Your task to perform on an android device: Search for Mexican restaurants on Maps Image 0: 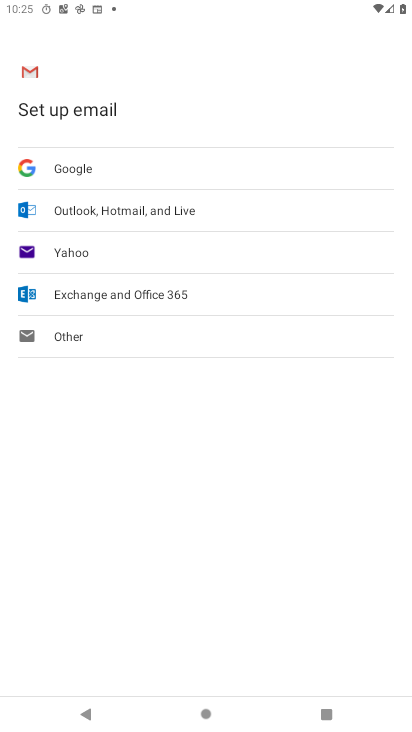
Step 0: press home button
Your task to perform on an android device: Search for Mexican restaurants on Maps Image 1: 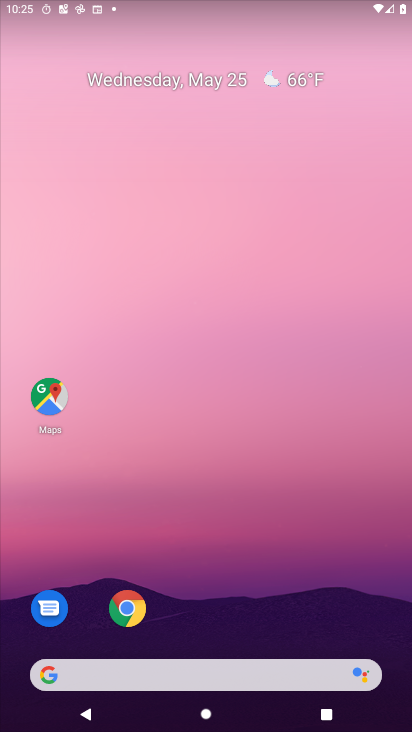
Step 1: drag from (229, 728) to (220, 50)
Your task to perform on an android device: Search for Mexican restaurants on Maps Image 2: 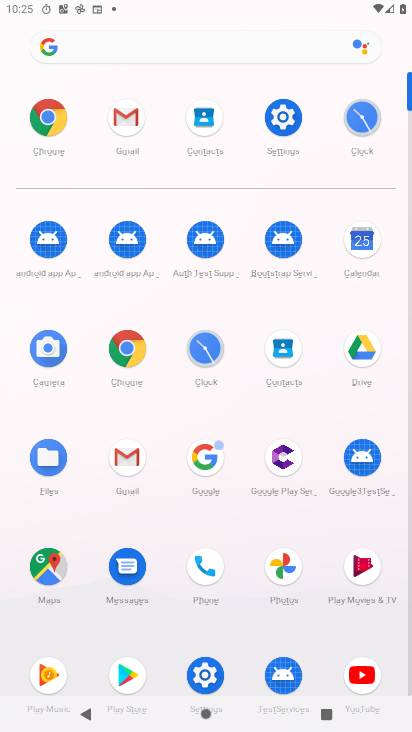
Step 2: click (34, 566)
Your task to perform on an android device: Search for Mexican restaurants on Maps Image 3: 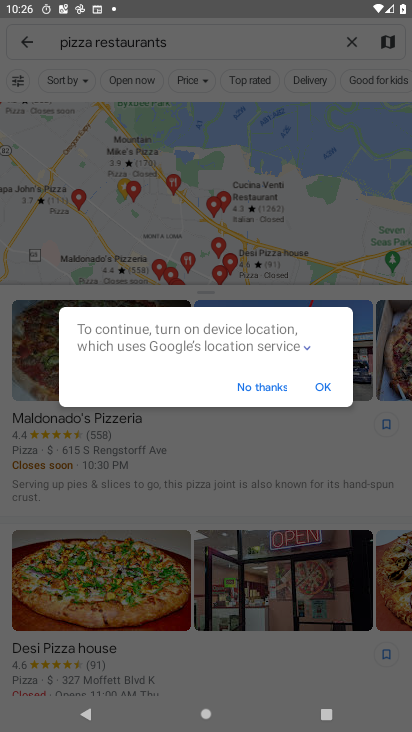
Step 3: click (270, 380)
Your task to perform on an android device: Search for Mexican restaurants on Maps Image 4: 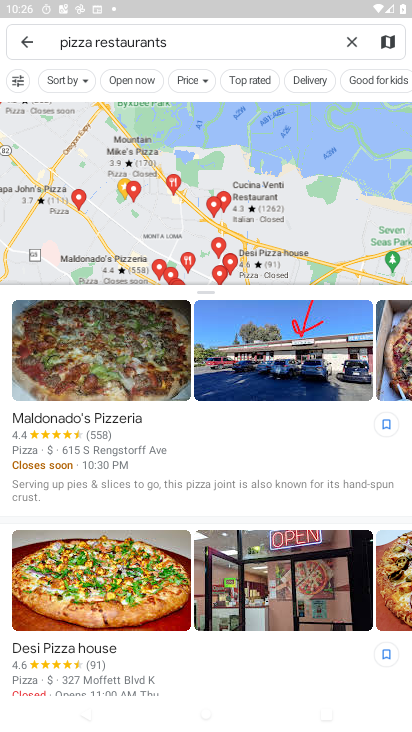
Step 4: click (348, 41)
Your task to perform on an android device: Search for Mexican restaurants on Maps Image 5: 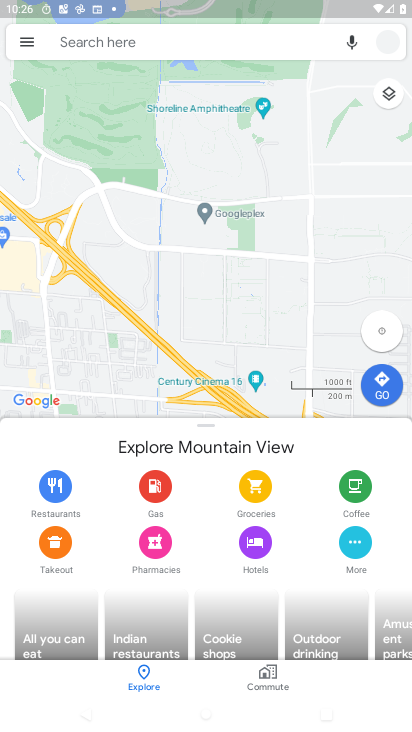
Step 5: click (210, 43)
Your task to perform on an android device: Search for Mexican restaurants on Maps Image 6: 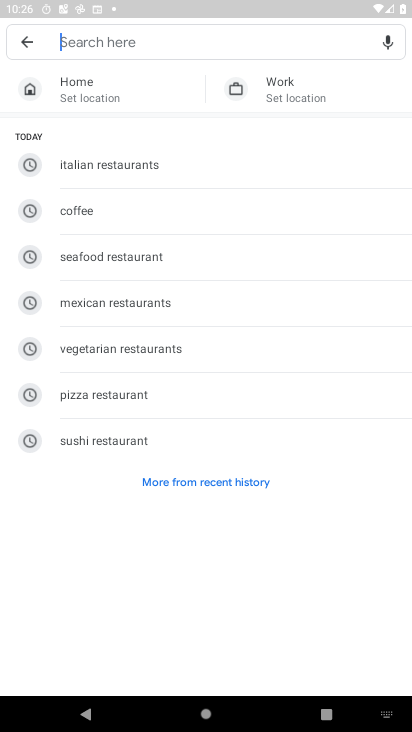
Step 6: type "Mexican restaurants"
Your task to perform on an android device: Search for Mexican restaurants on Maps Image 7: 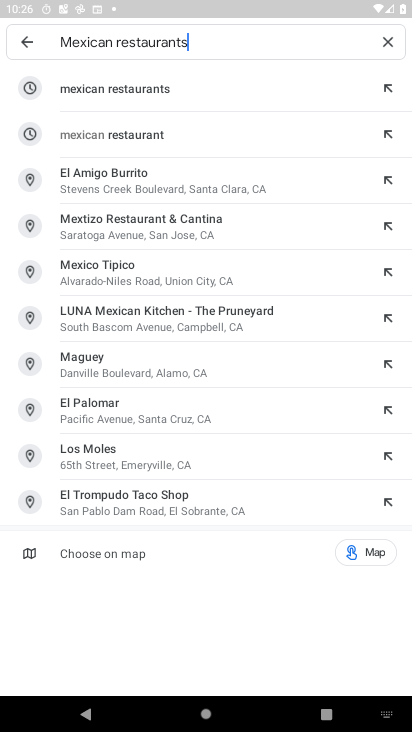
Step 7: click (71, 89)
Your task to perform on an android device: Search for Mexican restaurants on Maps Image 8: 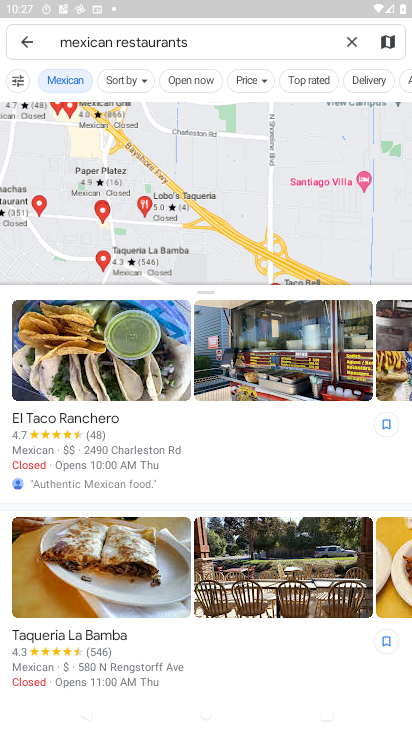
Step 8: task complete